Your task to perform on an android device: delete browsing data in the chrome app Image 0: 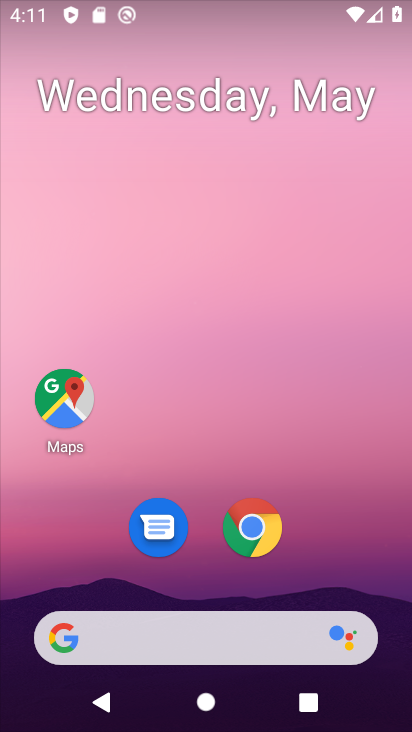
Step 0: drag from (346, 550) to (367, 140)
Your task to perform on an android device: delete browsing data in the chrome app Image 1: 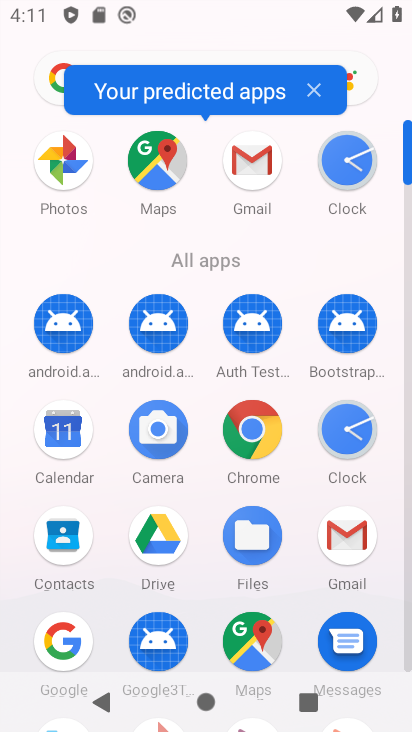
Step 1: click (237, 460)
Your task to perform on an android device: delete browsing data in the chrome app Image 2: 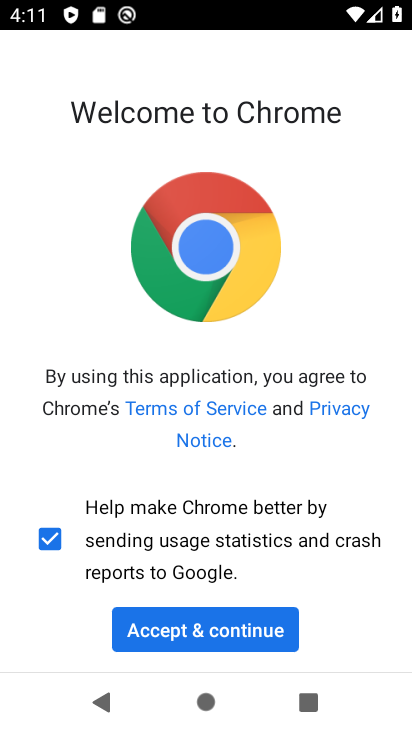
Step 2: click (230, 655)
Your task to perform on an android device: delete browsing data in the chrome app Image 3: 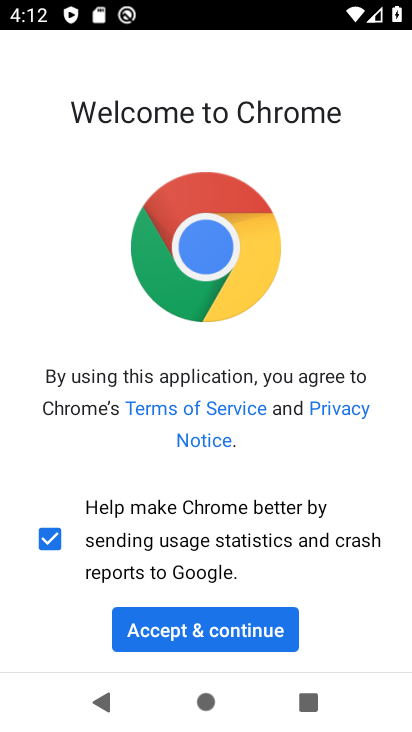
Step 3: click (262, 608)
Your task to perform on an android device: delete browsing data in the chrome app Image 4: 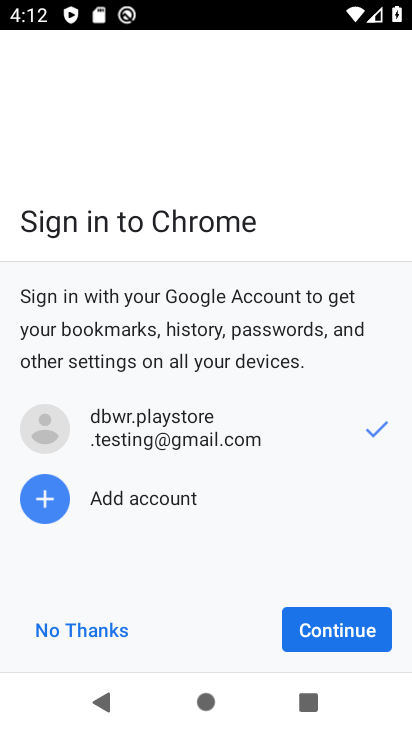
Step 4: click (372, 630)
Your task to perform on an android device: delete browsing data in the chrome app Image 5: 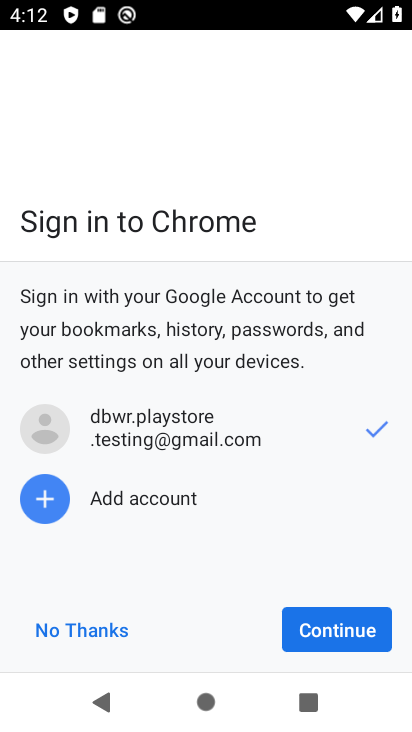
Step 5: click (372, 630)
Your task to perform on an android device: delete browsing data in the chrome app Image 6: 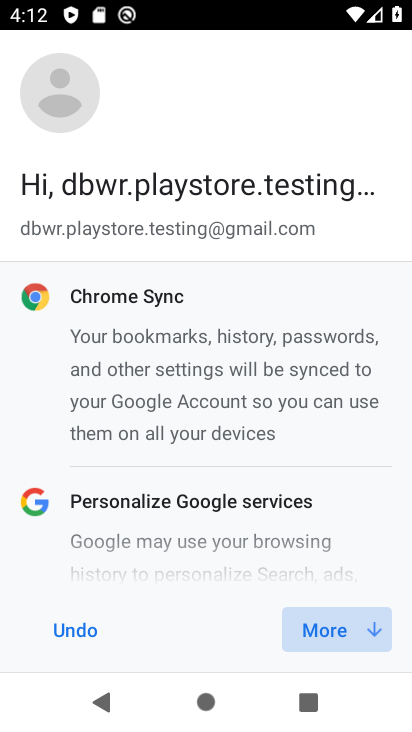
Step 6: click (372, 630)
Your task to perform on an android device: delete browsing data in the chrome app Image 7: 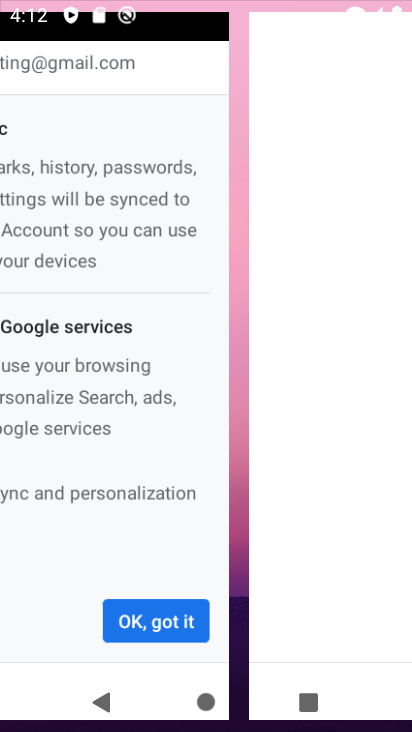
Step 7: click (370, 602)
Your task to perform on an android device: delete browsing data in the chrome app Image 8: 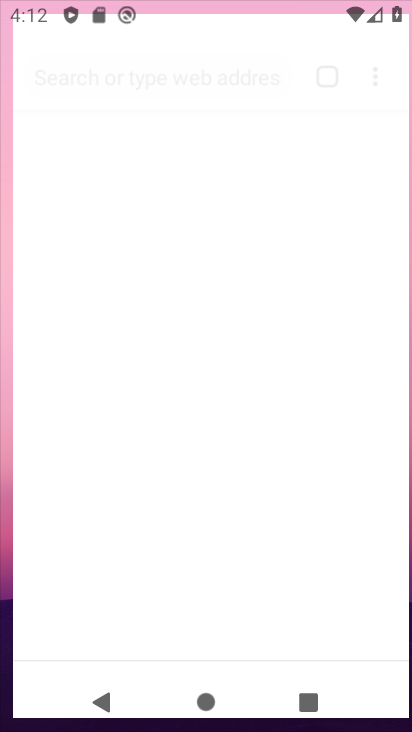
Step 8: click (370, 602)
Your task to perform on an android device: delete browsing data in the chrome app Image 9: 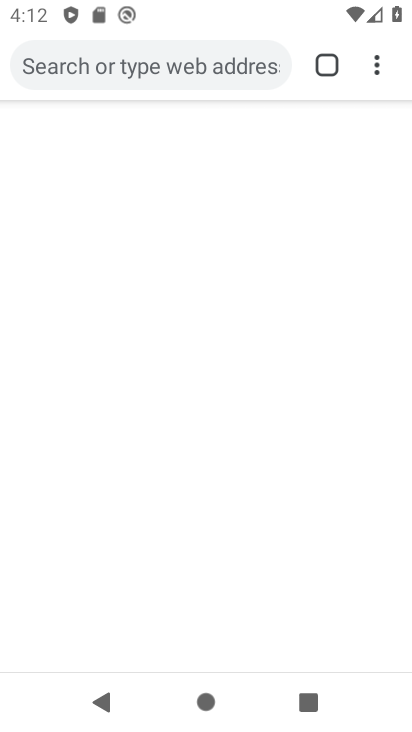
Step 9: click (370, 602)
Your task to perform on an android device: delete browsing data in the chrome app Image 10: 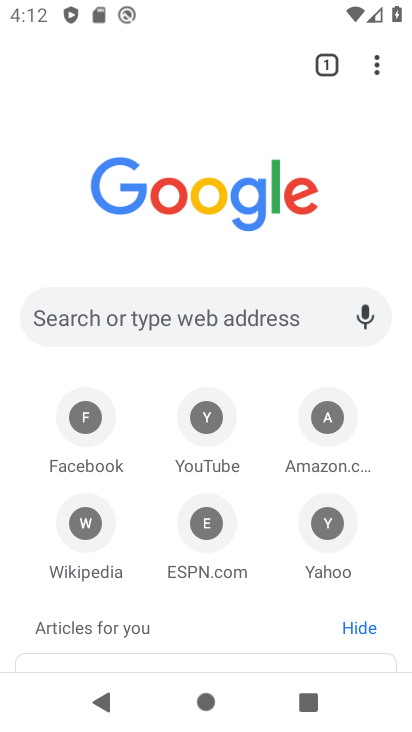
Step 10: drag from (345, 47) to (402, 345)
Your task to perform on an android device: delete browsing data in the chrome app Image 11: 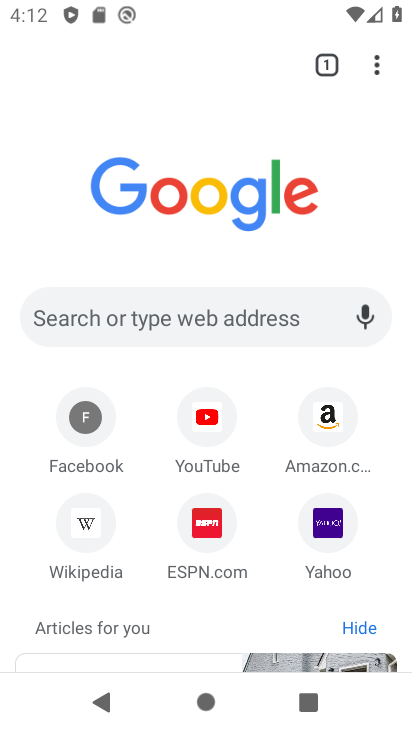
Step 11: drag from (373, 68) to (188, 544)
Your task to perform on an android device: delete browsing data in the chrome app Image 12: 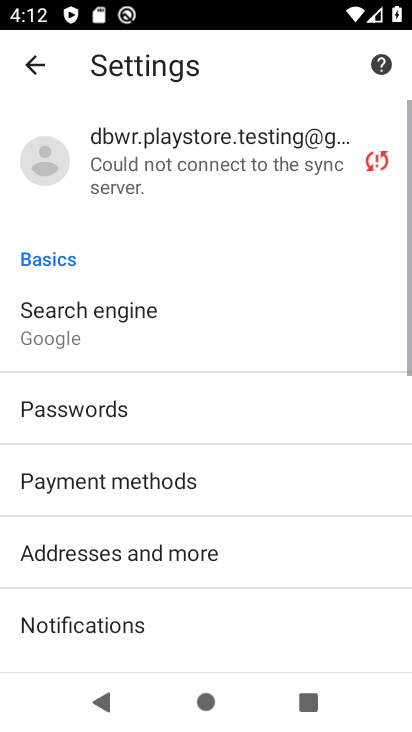
Step 12: drag from (200, 551) to (237, 110)
Your task to perform on an android device: delete browsing data in the chrome app Image 13: 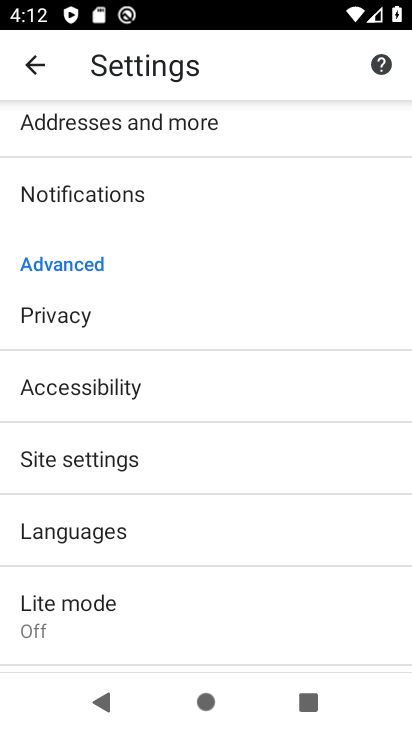
Step 13: click (117, 323)
Your task to perform on an android device: delete browsing data in the chrome app Image 14: 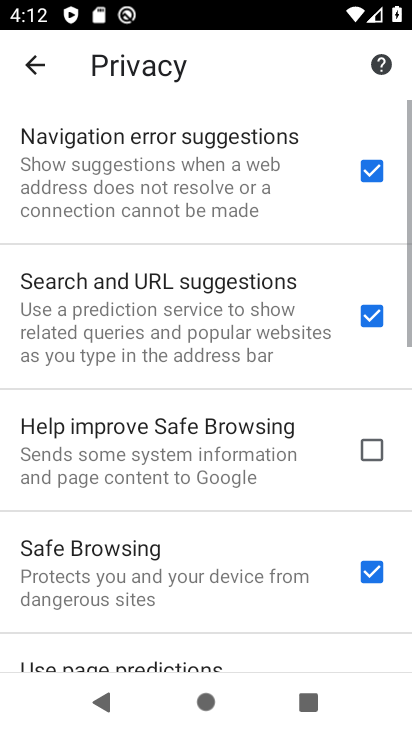
Step 14: drag from (193, 597) to (246, 151)
Your task to perform on an android device: delete browsing data in the chrome app Image 15: 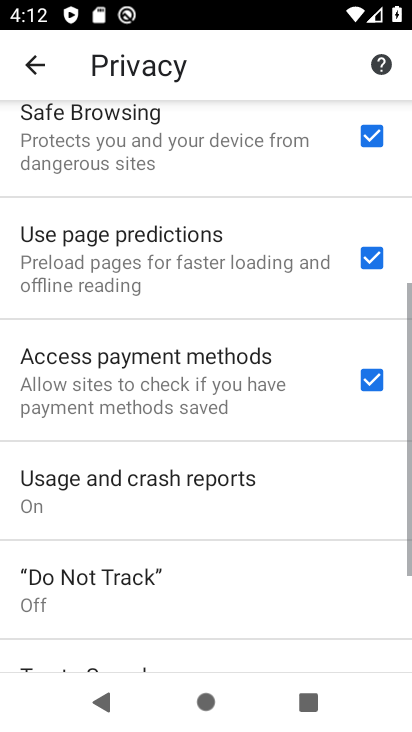
Step 15: drag from (244, 572) to (249, 212)
Your task to perform on an android device: delete browsing data in the chrome app Image 16: 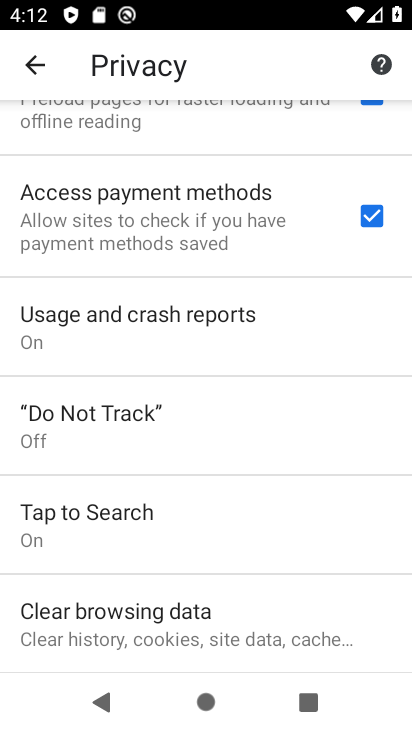
Step 16: click (250, 608)
Your task to perform on an android device: delete browsing data in the chrome app Image 17: 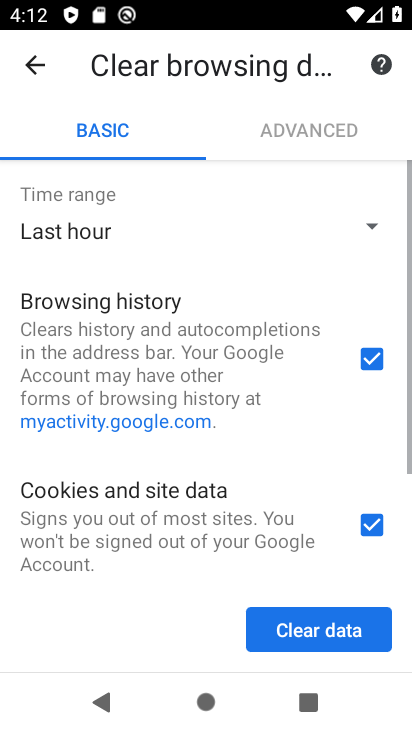
Step 17: click (290, 645)
Your task to perform on an android device: delete browsing data in the chrome app Image 18: 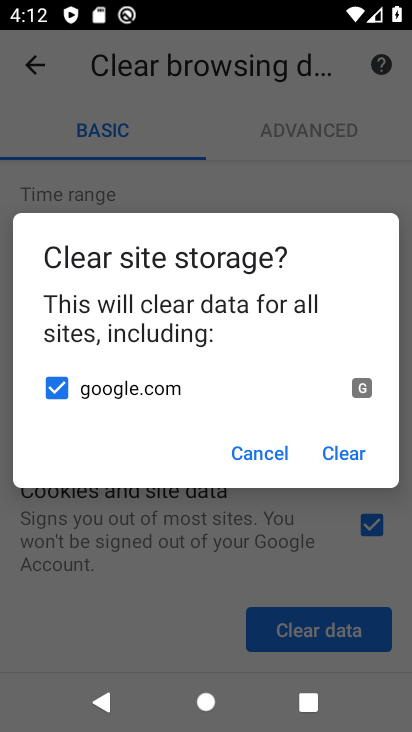
Step 18: click (333, 459)
Your task to perform on an android device: delete browsing data in the chrome app Image 19: 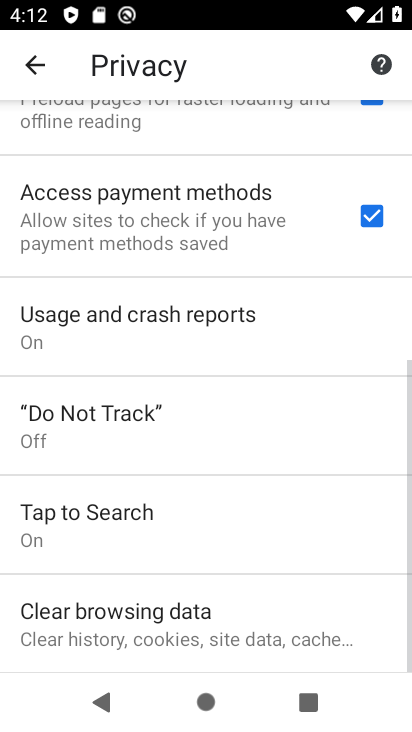
Step 19: task complete